Your task to perform on an android device: check android version Image 0: 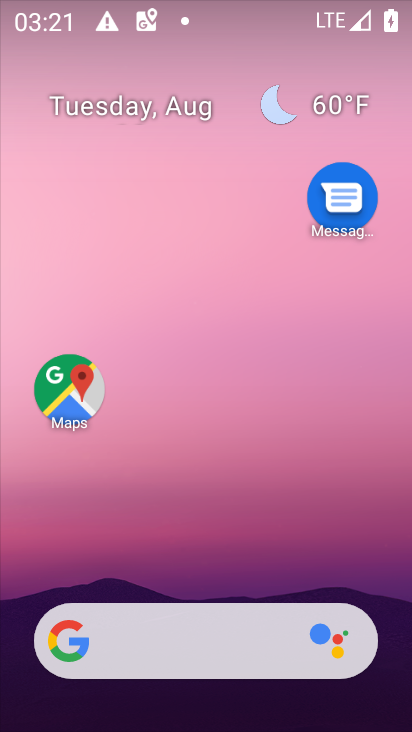
Step 0: drag from (241, 576) to (219, 31)
Your task to perform on an android device: check android version Image 1: 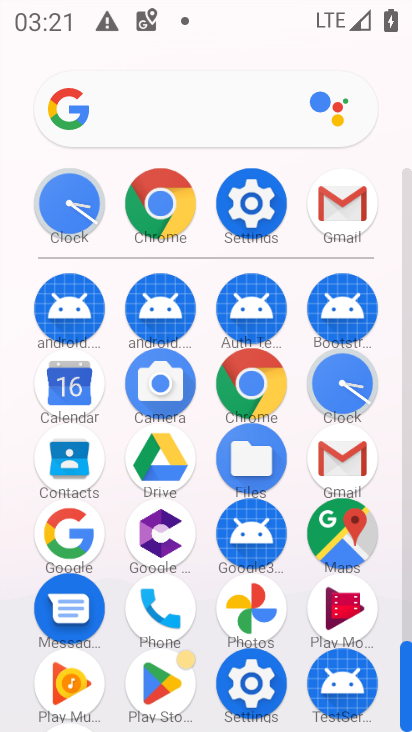
Step 1: click (274, 207)
Your task to perform on an android device: check android version Image 2: 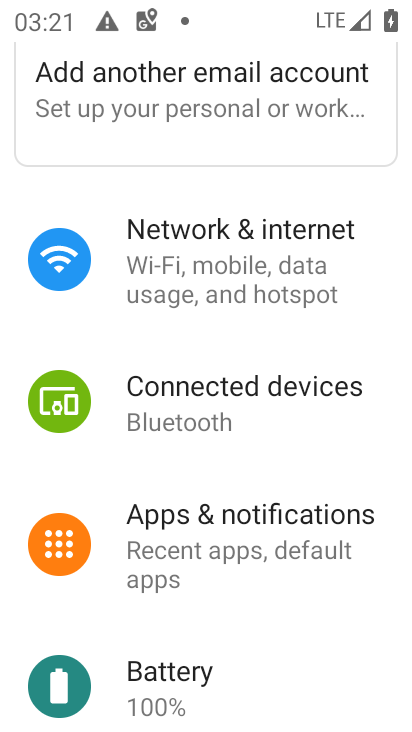
Step 2: drag from (263, 637) to (258, 152)
Your task to perform on an android device: check android version Image 3: 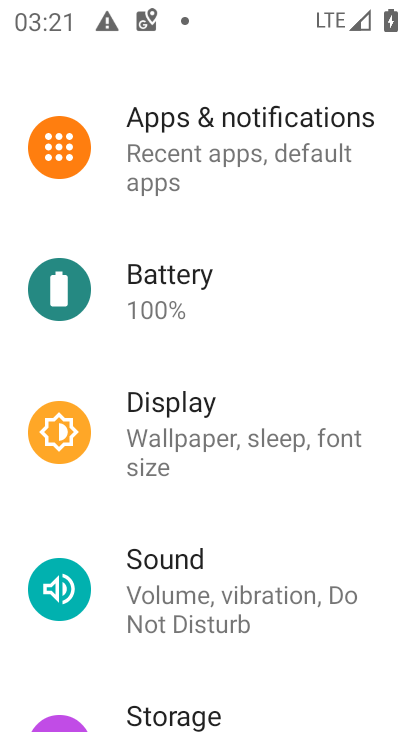
Step 3: drag from (286, 727) to (240, 250)
Your task to perform on an android device: check android version Image 4: 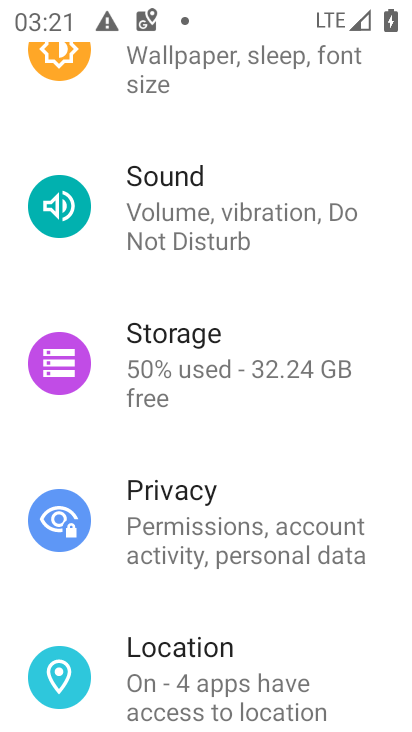
Step 4: drag from (278, 558) to (251, 132)
Your task to perform on an android device: check android version Image 5: 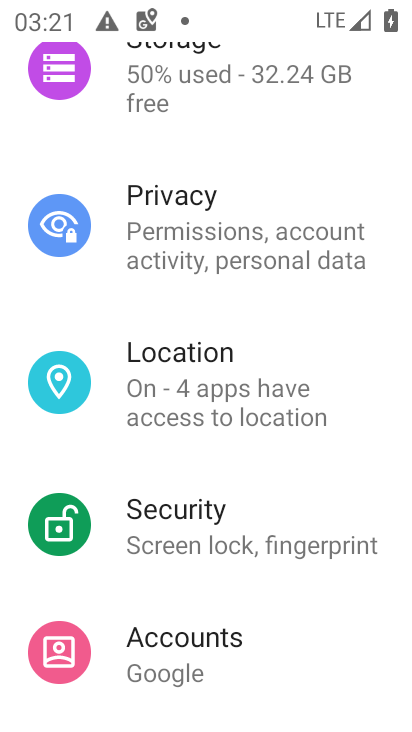
Step 5: drag from (264, 650) to (258, 258)
Your task to perform on an android device: check android version Image 6: 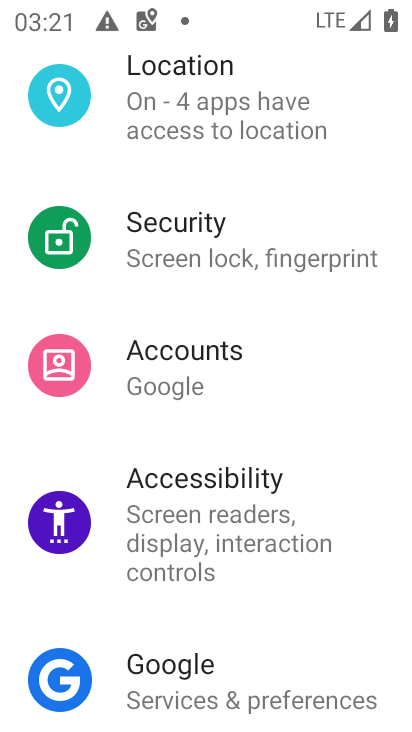
Step 6: drag from (232, 590) to (249, 255)
Your task to perform on an android device: check android version Image 7: 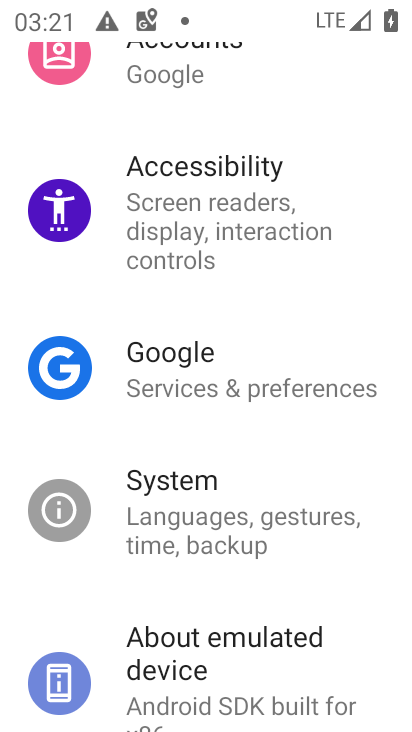
Step 7: click (273, 641)
Your task to perform on an android device: check android version Image 8: 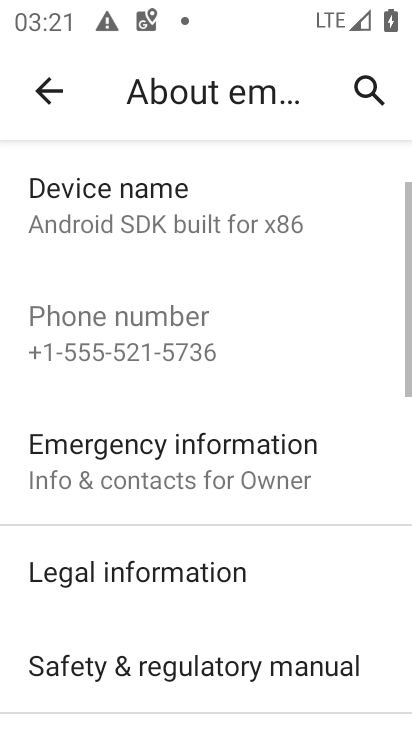
Step 8: task complete